Your task to perform on an android device: turn on location history Image 0: 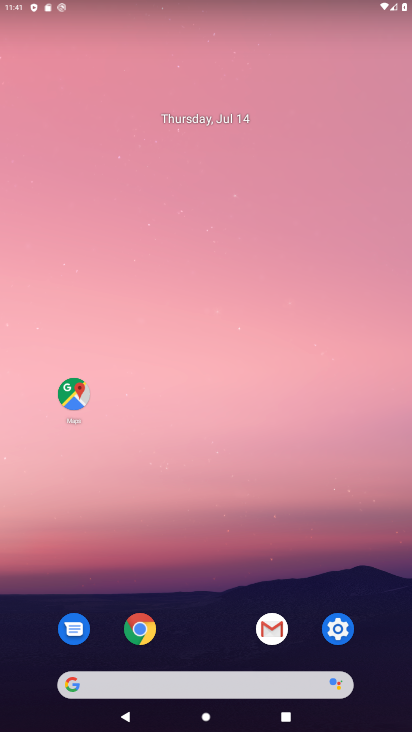
Step 0: click (346, 634)
Your task to perform on an android device: turn on location history Image 1: 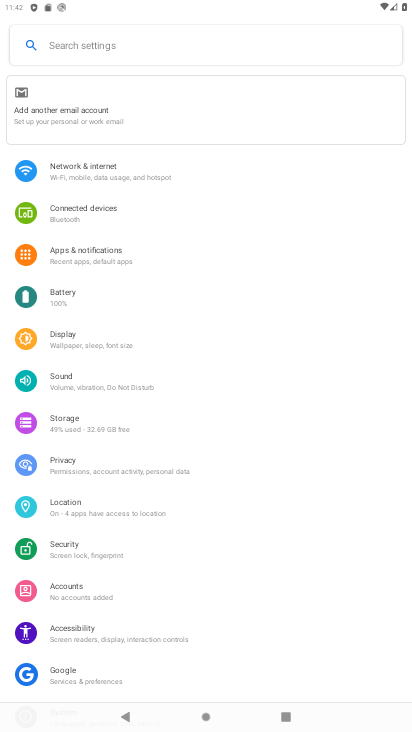
Step 1: click (85, 504)
Your task to perform on an android device: turn on location history Image 2: 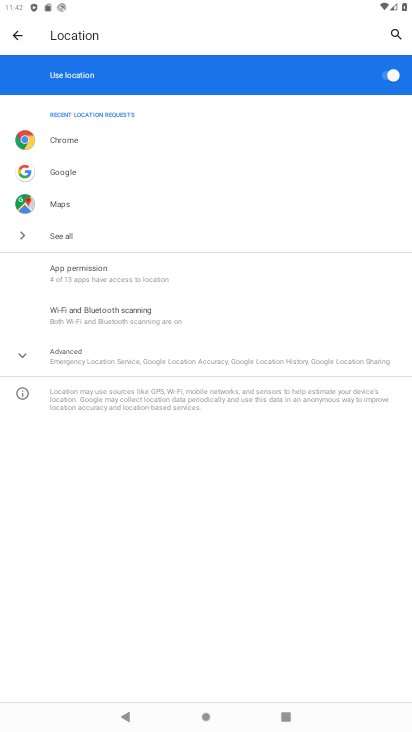
Step 2: click (26, 350)
Your task to perform on an android device: turn on location history Image 3: 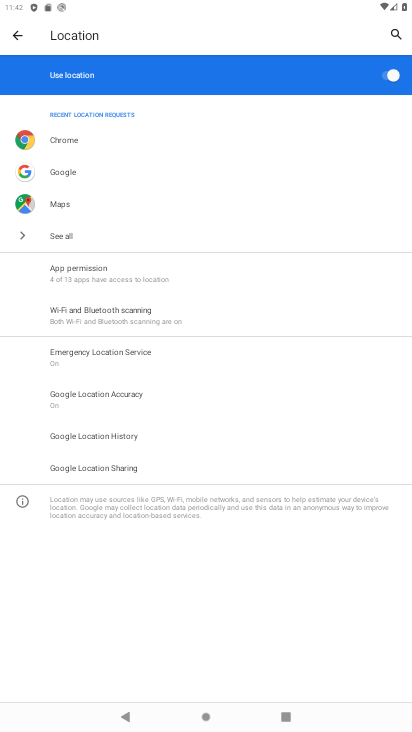
Step 3: click (105, 433)
Your task to perform on an android device: turn on location history Image 4: 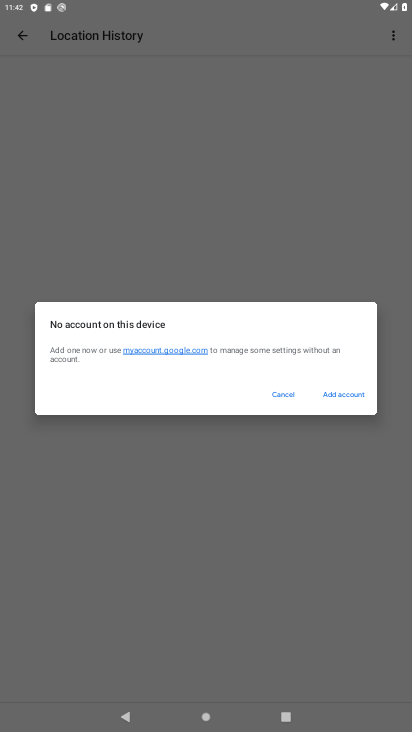
Step 4: click (284, 398)
Your task to perform on an android device: turn on location history Image 5: 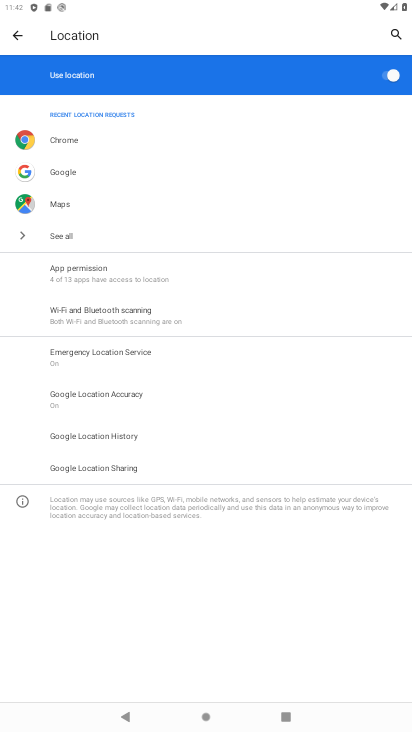
Step 5: click (70, 429)
Your task to perform on an android device: turn on location history Image 6: 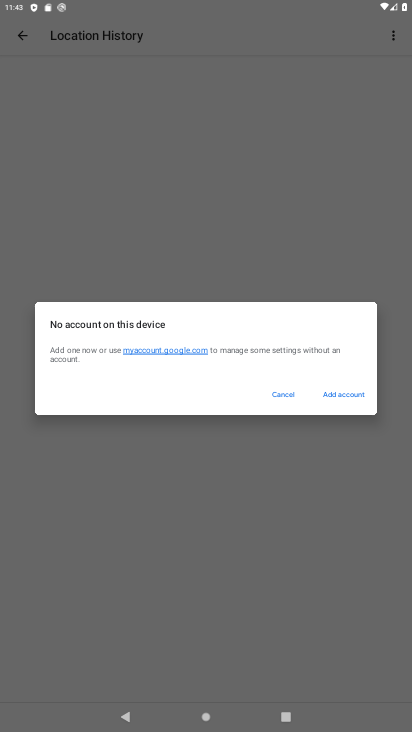
Step 6: task complete